Your task to perform on an android device: toggle pop-ups in chrome Image 0: 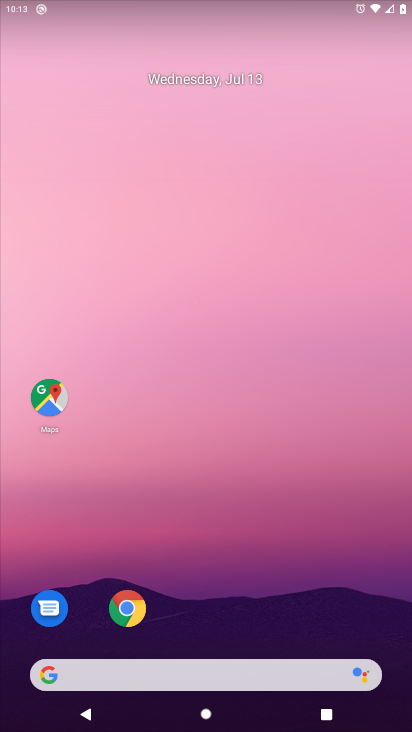
Step 0: click (131, 609)
Your task to perform on an android device: toggle pop-ups in chrome Image 1: 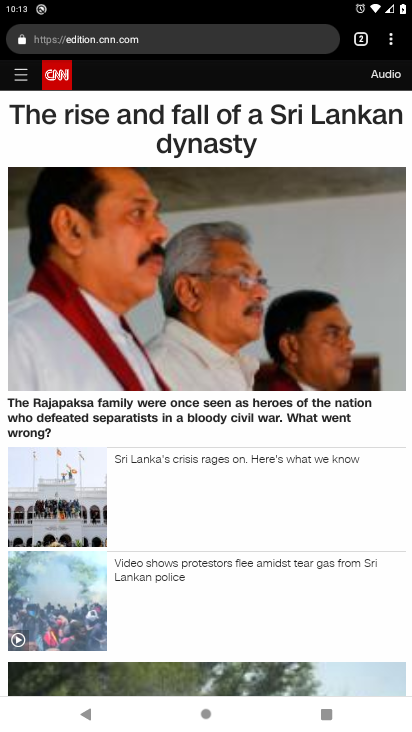
Step 1: click (391, 37)
Your task to perform on an android device: toggle pop-ups in chrome Image 2: 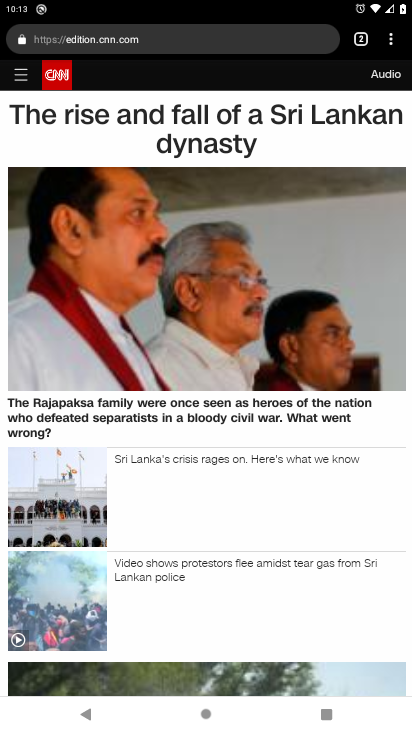
Step 2: click (389, 44)
Your task to perform on an android device: toggle pop-ups in chrome Image 3: 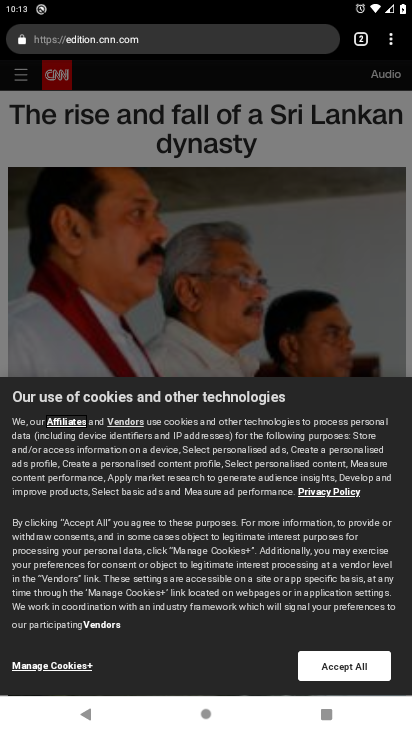
Step 3: task complete